Your task to perform on an android device: Open Google Maps and go to "Timeline" Image 0: 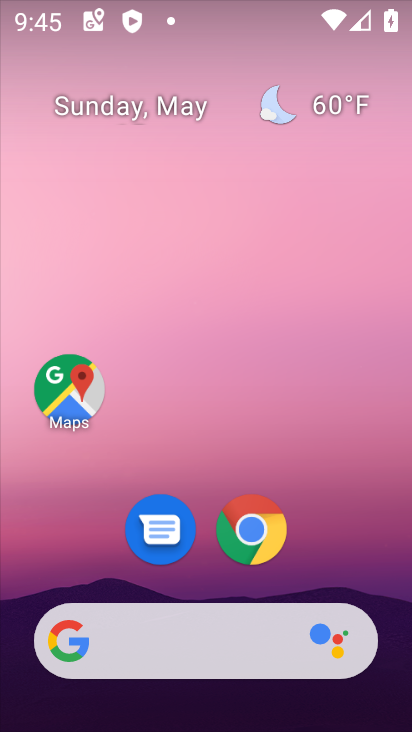
Step 0: drag from (377, 564) to (372, 147)
Your task to perform on an android device: Open Google Maps and go to "Timeline" Image 1: 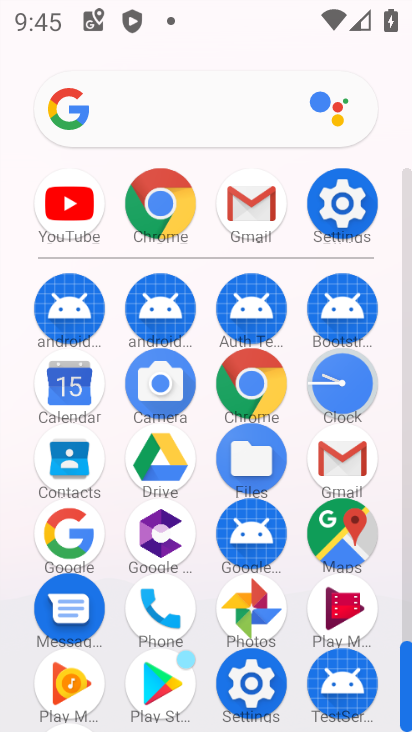
Step 1: click (343, 527)
Your task to perform on an android device: Open Google Maps and go to "Timeline" Image 2: 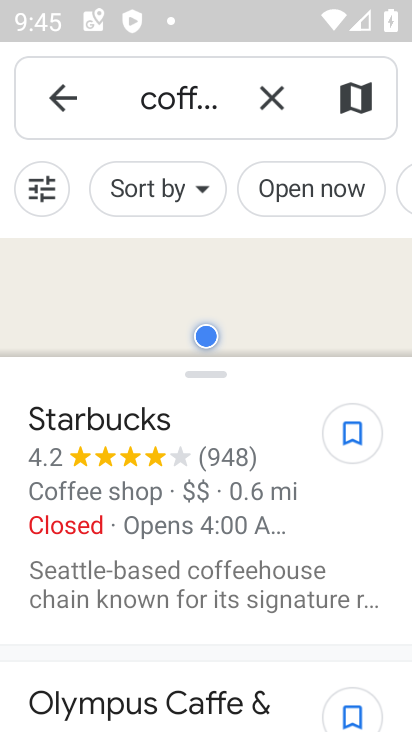
Step 2: click (68, 108)
Your task to perform on an android device: Open Google Maps and go to "Timeline" Image 3: 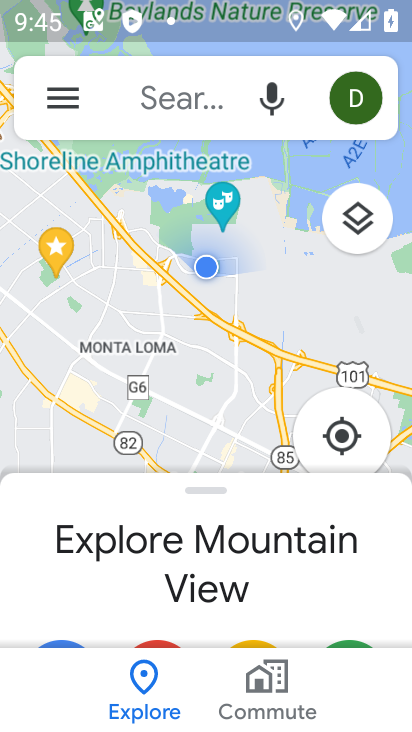
Step 3: click (70, 94)
Your task to perform on an android device: Open Google Maps and go to "Timeline" Image 4: 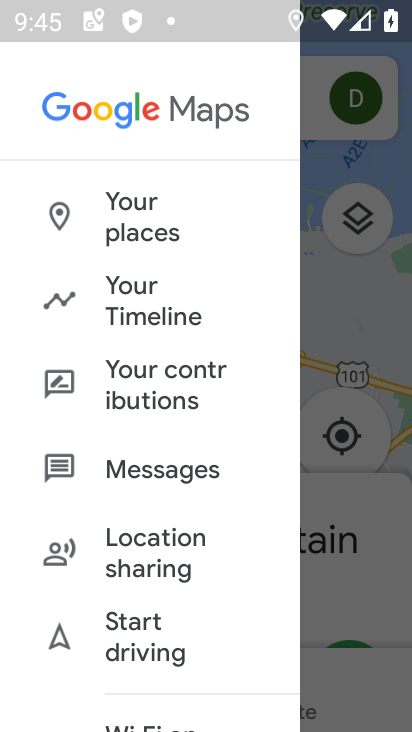
Step 4: click (154, 304)
Your task to perform on an android device: Open Google Maps and go to "Timeline" Image 5: 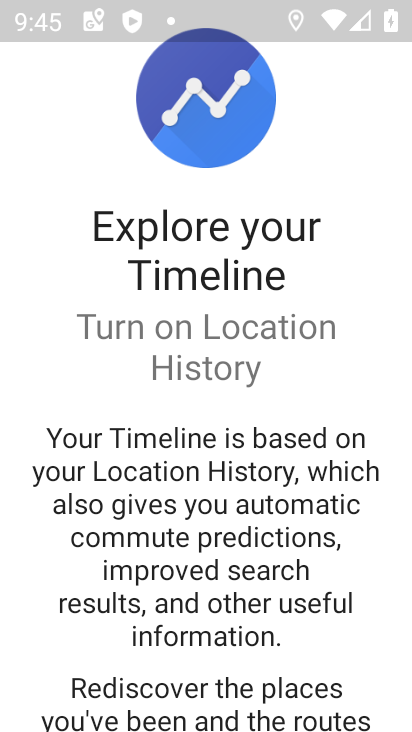
Step 5: task complete